Your task to perform on an android device: Check the weather Image 0: 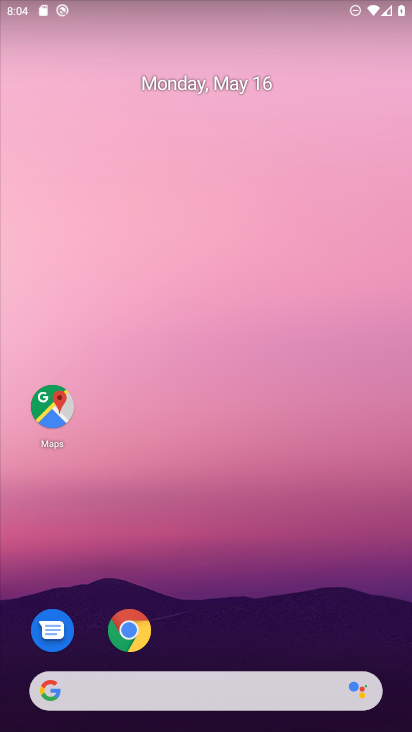
Step 0: click (135, 686)
Your task to perform on an android device: Check the weather Image 1: 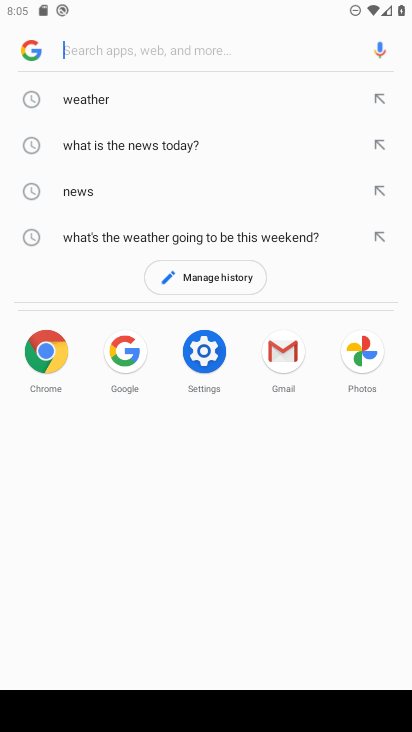
Step 1: click (109, 100)
Your task to perform on an android device: Check the weather Image 2: 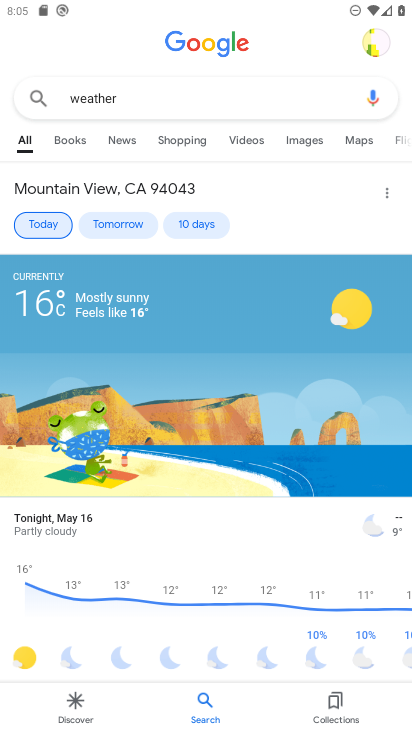
Step 2: drag from (205, 490) to (8, 526)
Your task to perform on an android device: Check the weather Image 3: 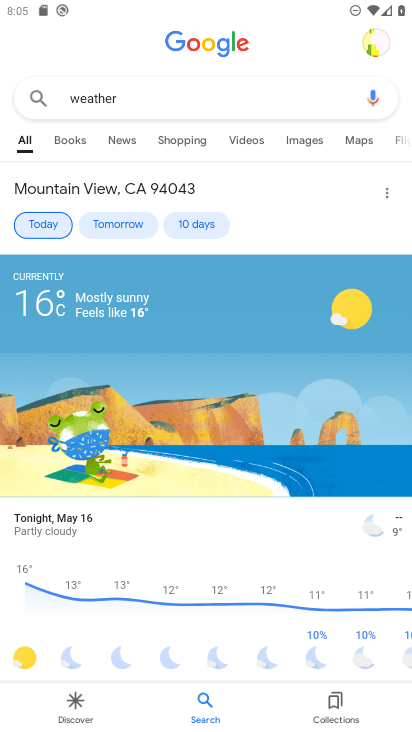
Step 3: drag from (347, 534) to (114, 559)
Your task to perform on an android device: Check the weather Image 4: 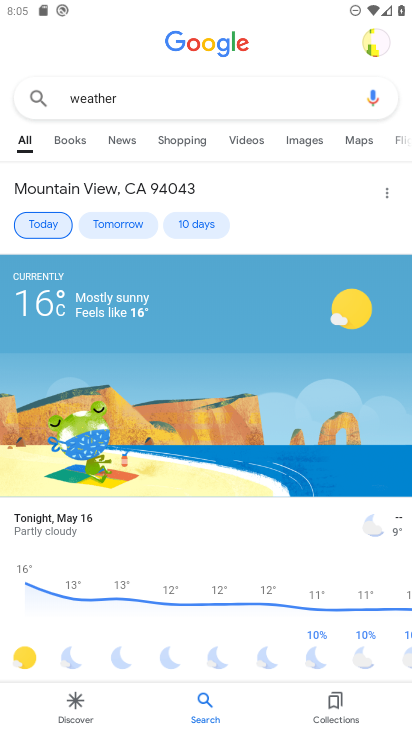
Step 4: click (196, 221)
Your task to perform on an android device: Check the weather Image 5: 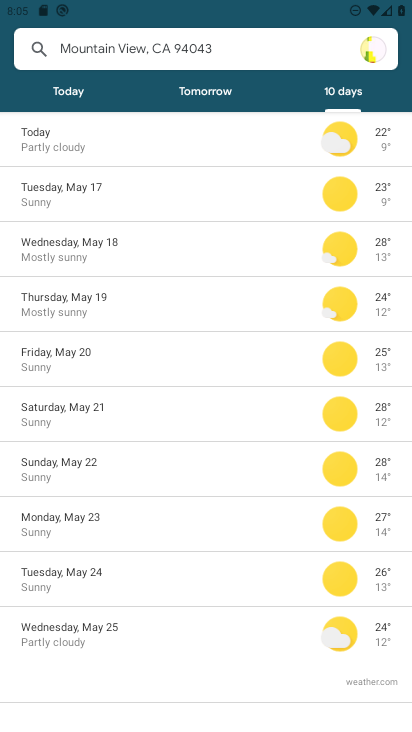
Step 5: task complete